Your task to perform on an android device: star an email in the gmail app Image 0: 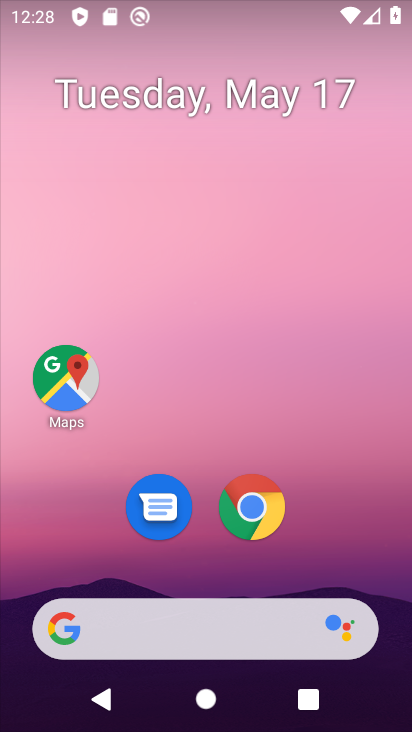
Step 0: drag from (378, 543) to (312, 150)
Your task to perform on an android device: star an email in the gmail app Image 1: 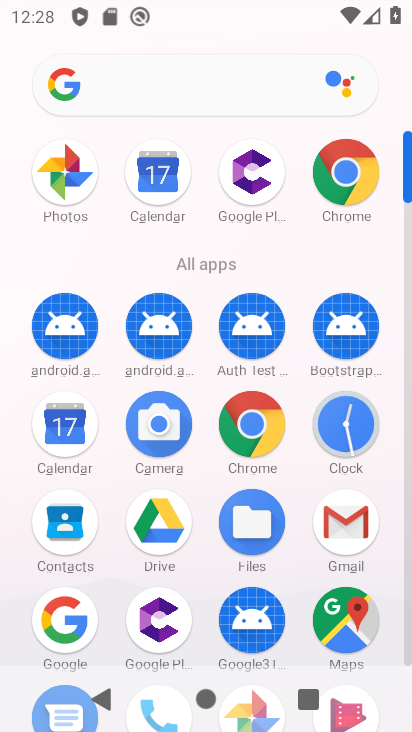
Step 1: click (355, 538)
Your task to perform on an android device: star an email in the gmail app Image 2: 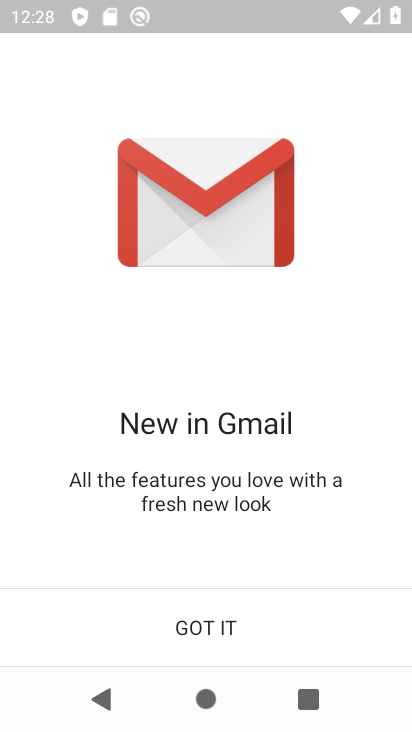
Step 2: click (219, 640)
Your task to perform on an android device: star an email in the gmail app Image 3: 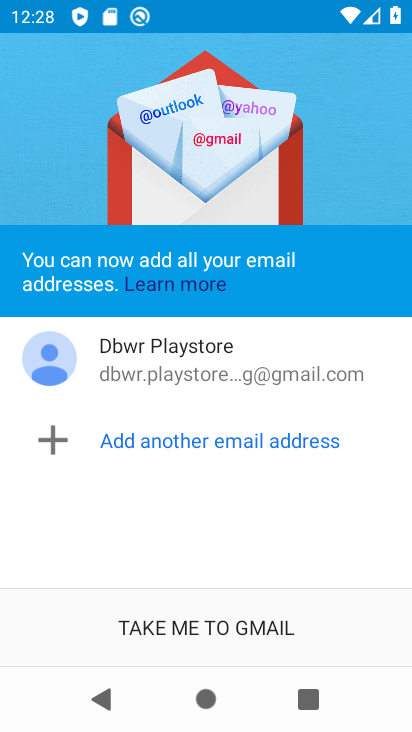
Step 3: click (219, 640)
Your task to perform on an android device: star an email in the gmail app Image 4: 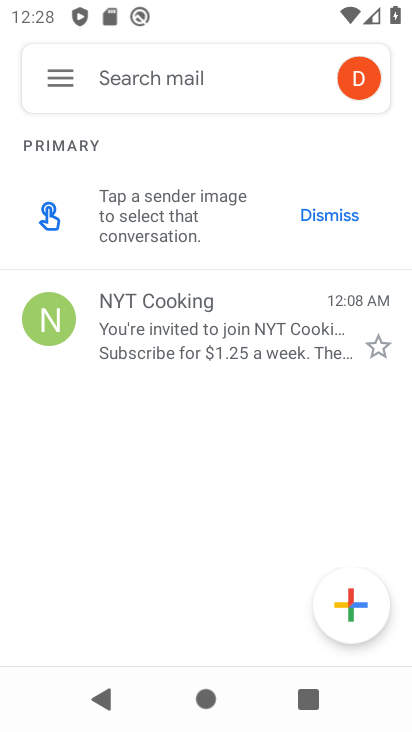
Step 4: click (64, 85)
Your task to perform on an android device: star an email in the gmail app Image 5: 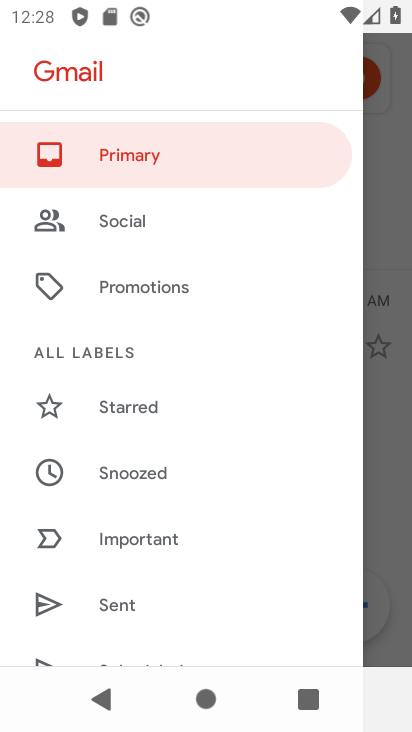
Step 5: drag from (196, 607) to (188, 308)
Your task to perform on an android device: star an email in the gmail app Image 6: 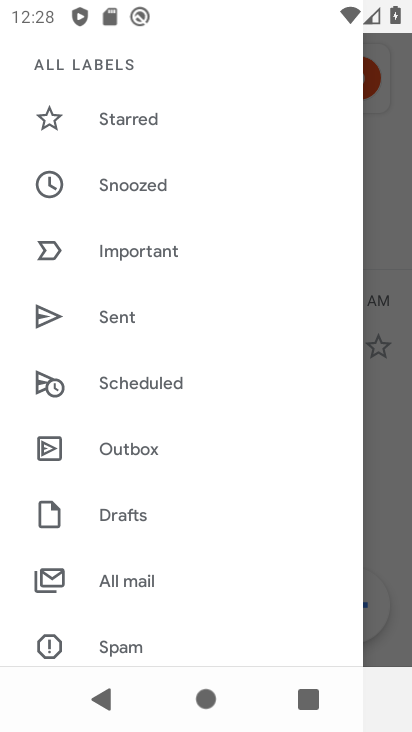
Step 6: click (192, 578)
Your task to perform on an android device: star an email in the gmail app Image 7: 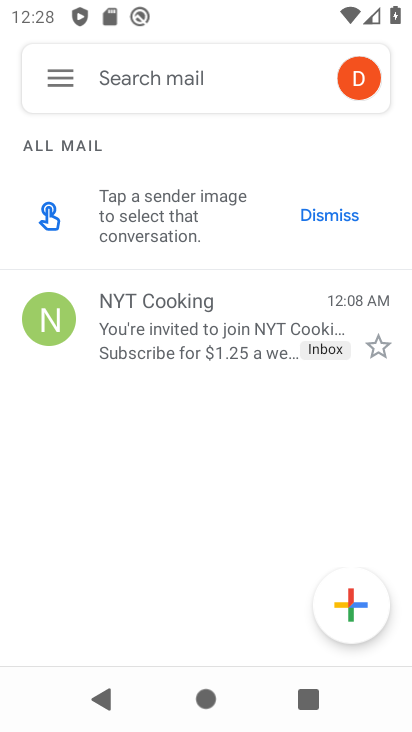
Step 7: click (385, 346)
Your task to perform on an android device: star an email in the gmail app Image 8: 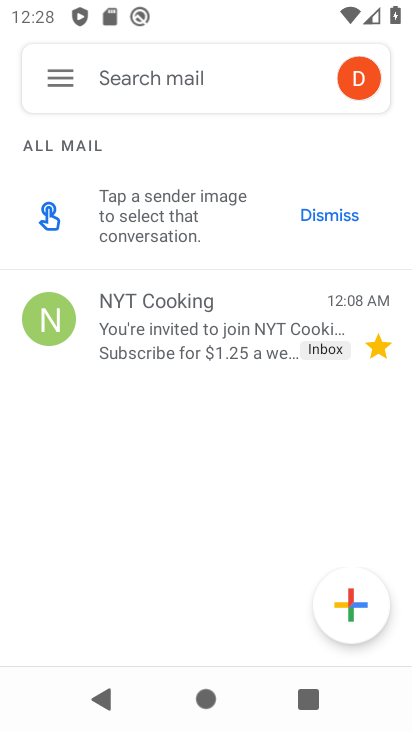
Step 8: task complete